Your task to perform on an android device: Open the phone app and click the voicemail tab. Image 0: 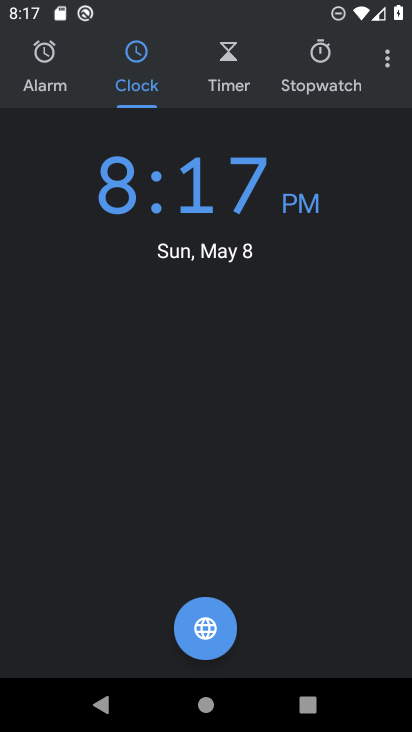
Step 0: press home button
Your task to perform on an android device: Open the phone app and click the voicemail tab. Image 1: 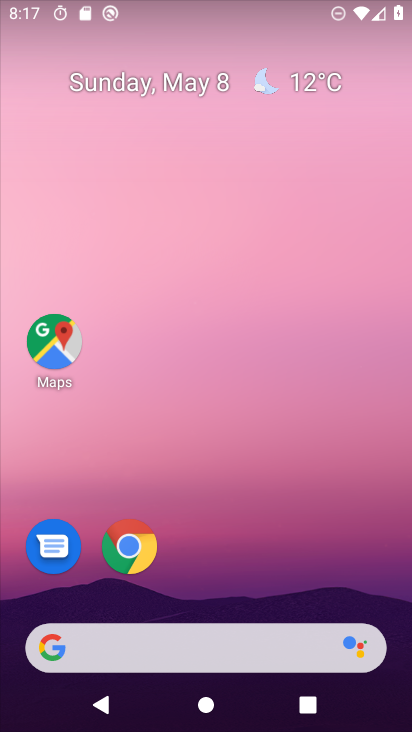
Step 1: drag from (299, 527) to (325, 36)
Your task to perform on an android device: Open the phone app and click the voicemail tab. Image 2: 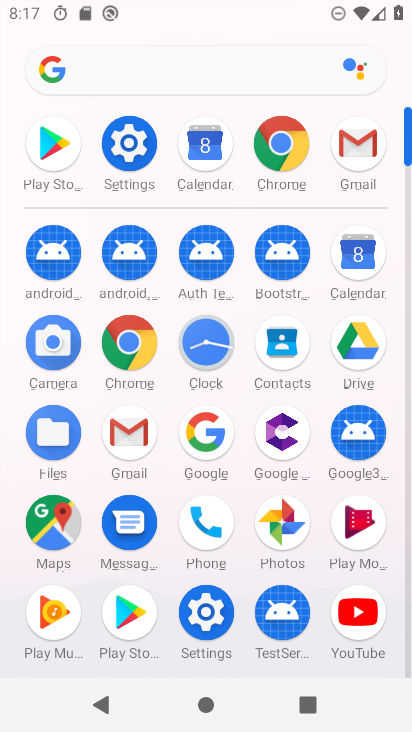
Step 2: click (199, 518)
Your task to perform on an android device: Open the phone app and click the voicemail tab. Image 3: 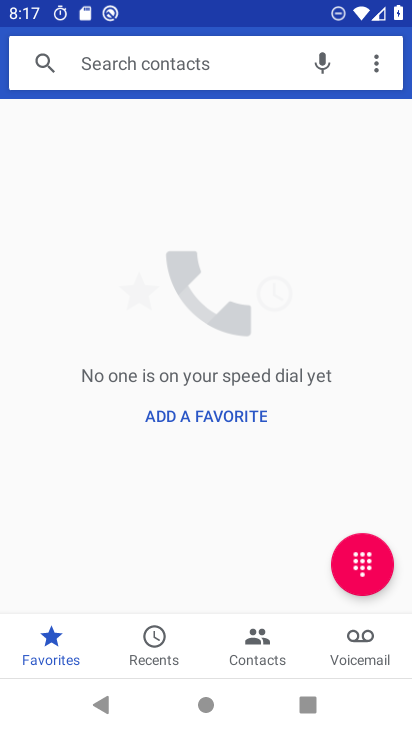
Step 3: click (359, 639)
Your task to perform on an android device: Open the phone app and click the voicemail tab. Image 4: 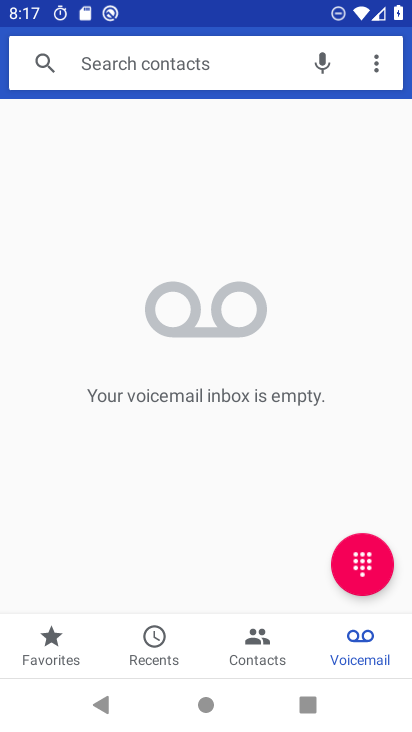
Step 4: task complete